Your task to perform on an android device: open the mobile data screen to see how much data has been used Image 0: 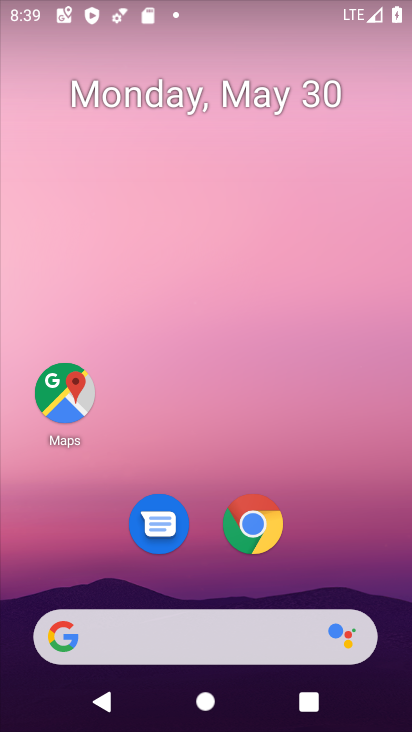
Step 0: drag from (307, 537) to (308, 15)
Your task to perform on an android device: open the mobile data screen to see how much data has been used Image 1: 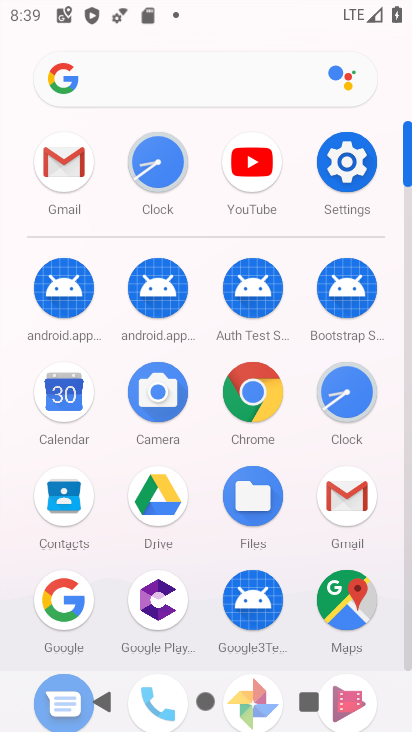
Step 1: click (337, 163)
Your task to perform on an android device: open the mobile data screen to see how much data has been used Image 2: 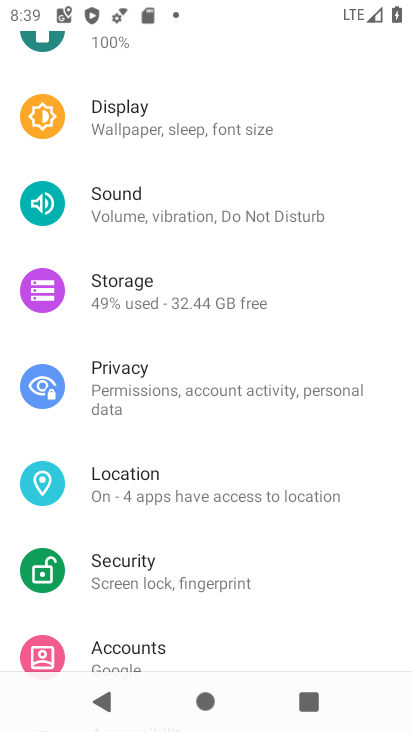
Step 2: drag from (244, 288) to (176, 694)
Your task to perform on an android device: open the mobile data screen to see how much data has been used Image 3: 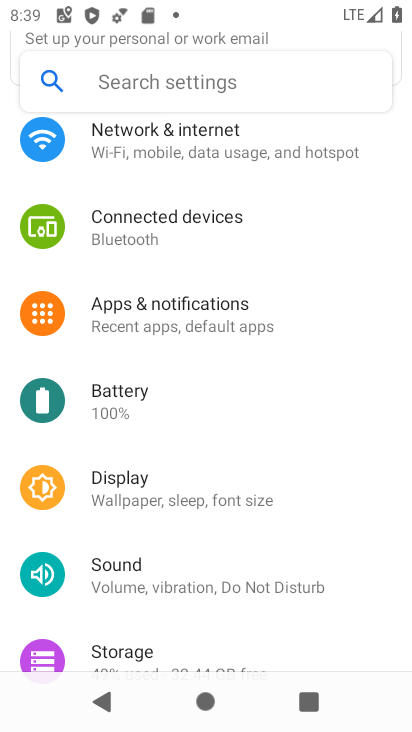
Step 3: drag from (254, 228) to (225, 565)
Your task to perform on an android device: open the mobile data screen to see how much data has been used Image 4: 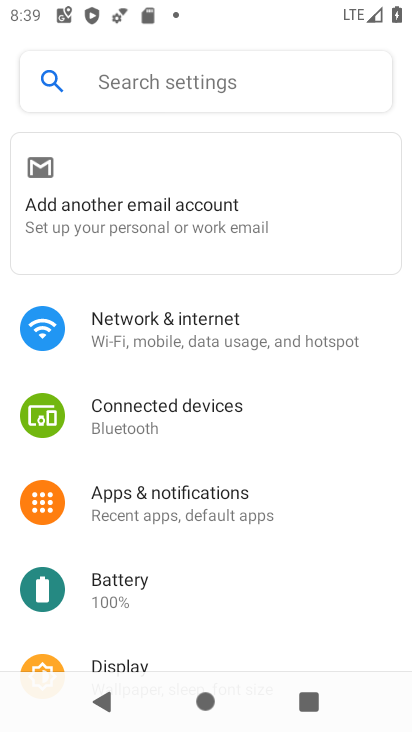
Step 4: click (255, 327)
Your task to perform on an android device: open the mobile data screen to see how much data has been used Image 5: 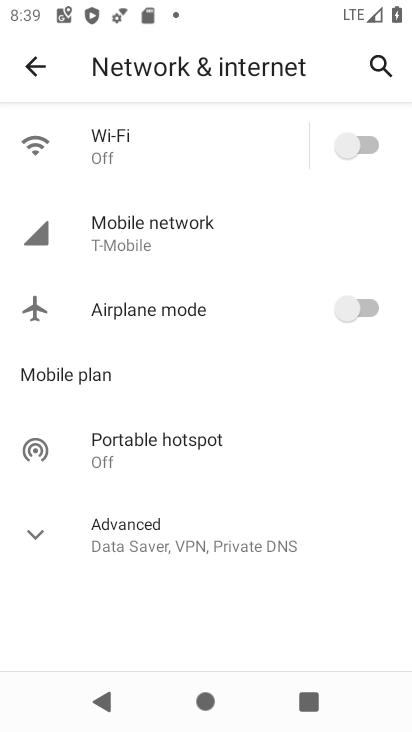
Step 5: click (255, 225)
Your task to perform on an android device: open the mobile data screen to see how much data has been used Image 6: 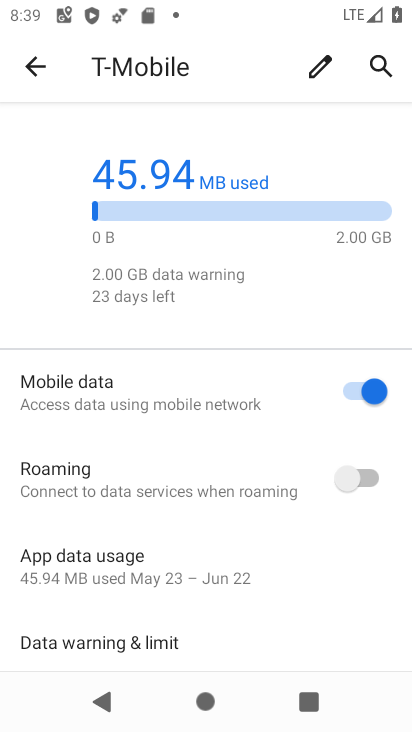
Step 6: task complete